Your task to perform on an android device: check battery use Image 0: 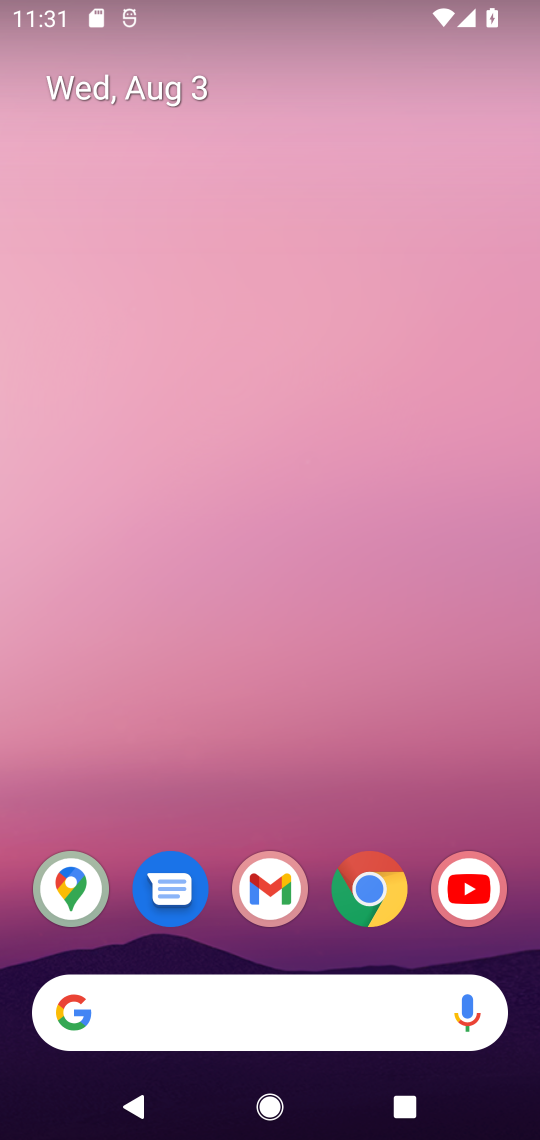
Step 0: drag from (417, 920) to (419, 183)
Your task to perform on an android device: check battery use Image 1: 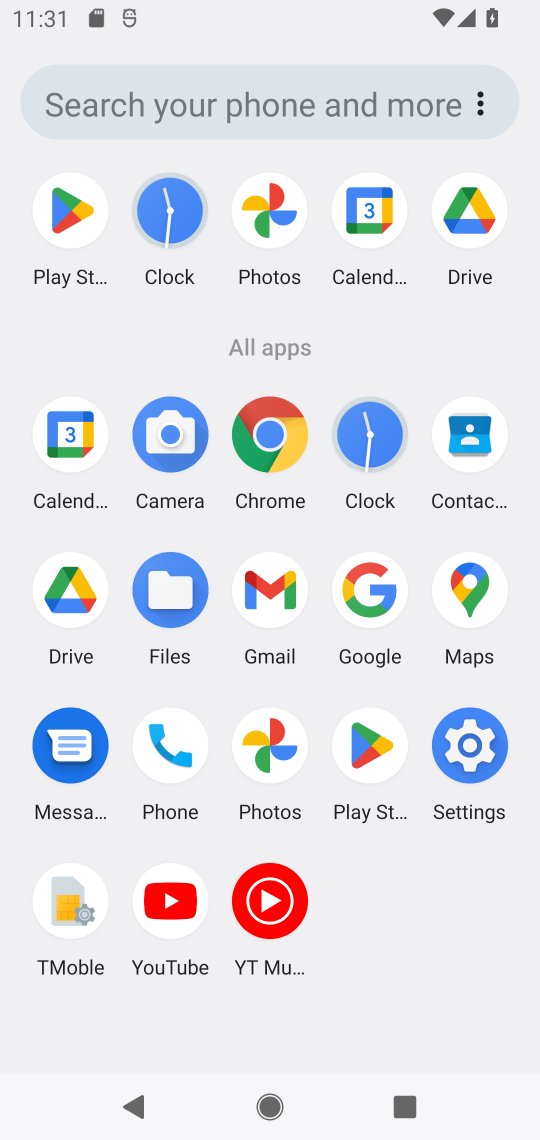
Step 1: click (470, 749)
Your task to perform on an android device: check battery use Image 2: 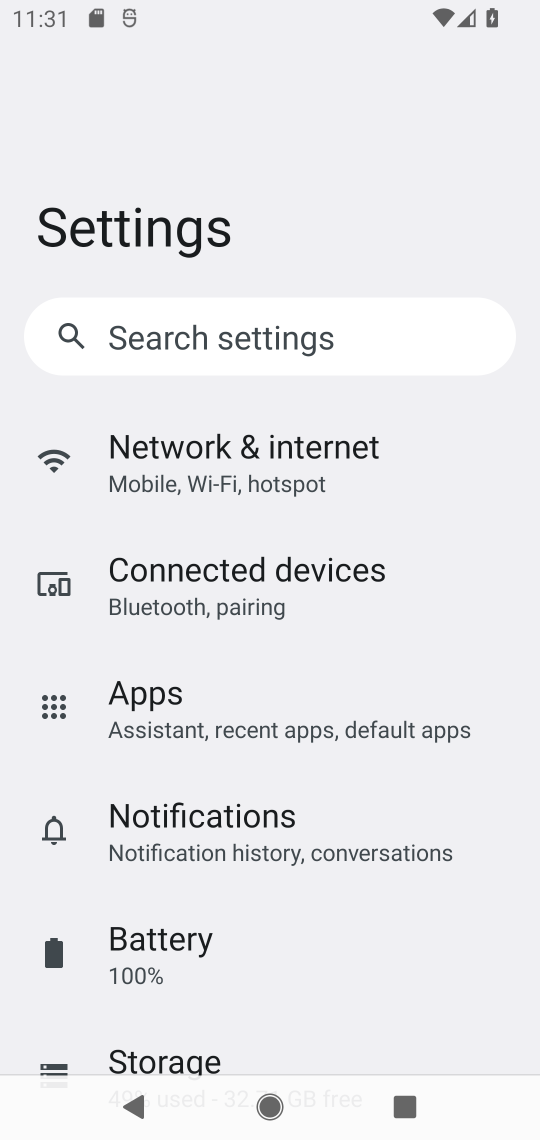
Step 2: click (144, 959)
Your task to perform on an android device: check battery use Image 3: 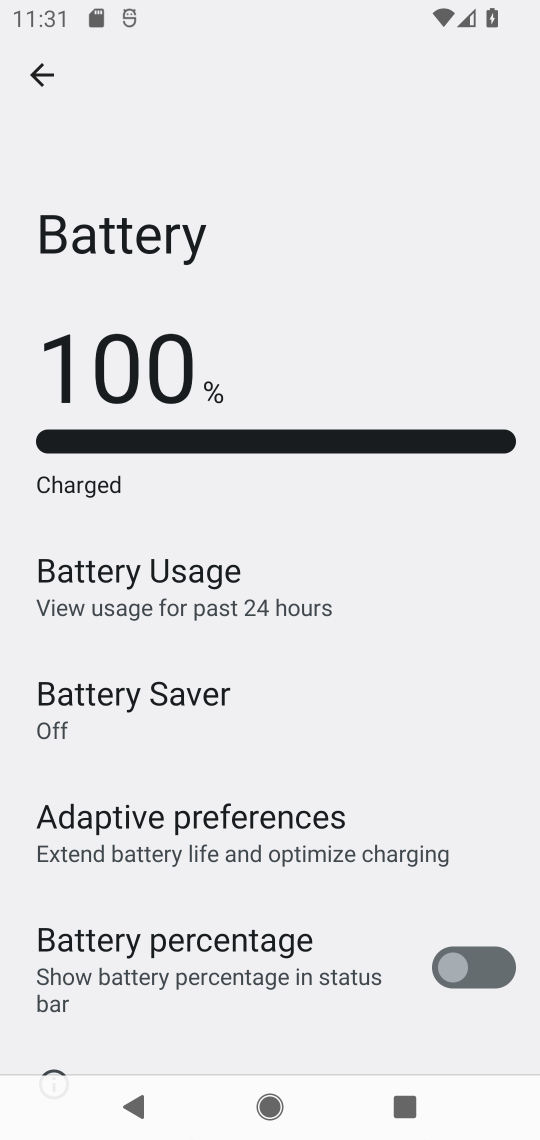
Step 3: click (144, 571)
Your task to perform on an android device: check battery use Image 4: 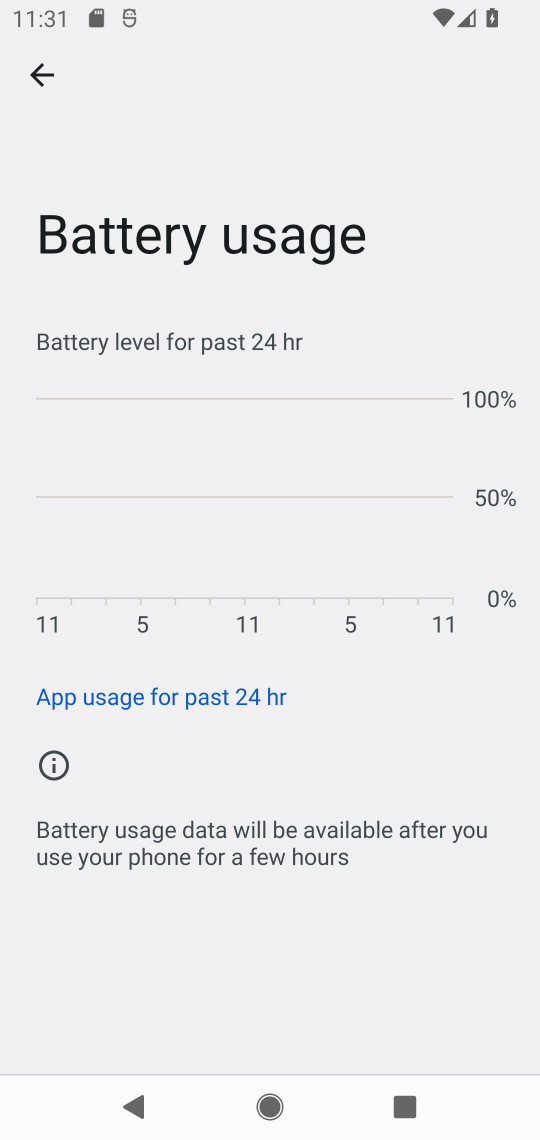
Step 4: task complete